Your task to perform on an android device: turn on wifi Image 0: 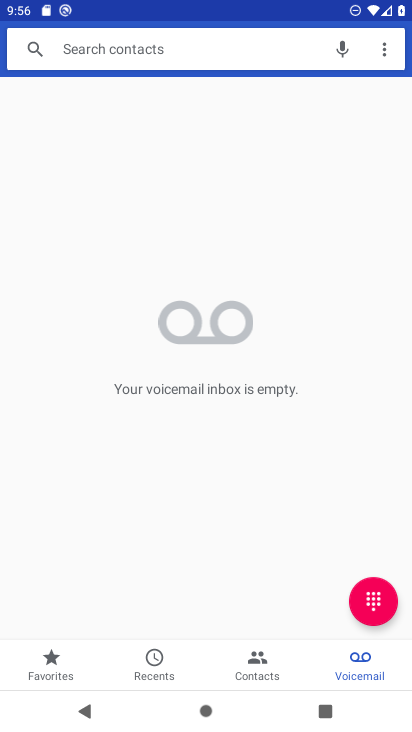
Step 0: click (135, 579)
Your task to perform on an android device: turn on wifi Image 1: 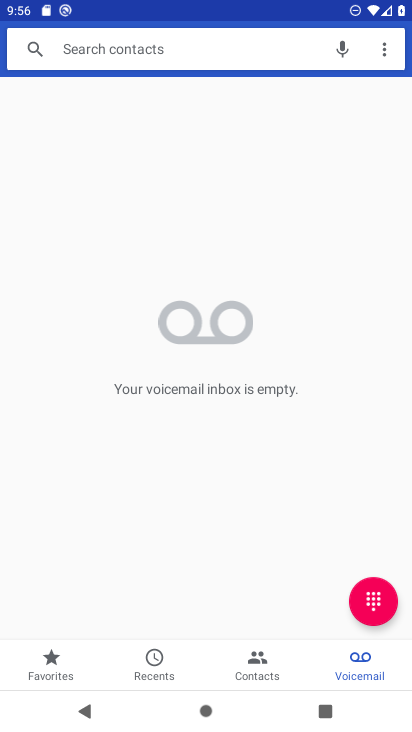
Step 1: task complete